Your task to perform on an android device: Open Youtube and go to the subscriptions tab Image 0: 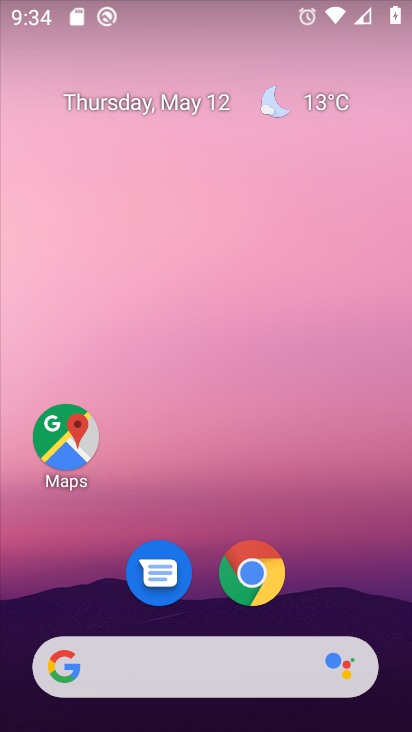
Step 0: drag from (405, 669) to (347, 179)
Your task to perform on an android device: Open Youtube and go to the subscriptions tab Image 1: 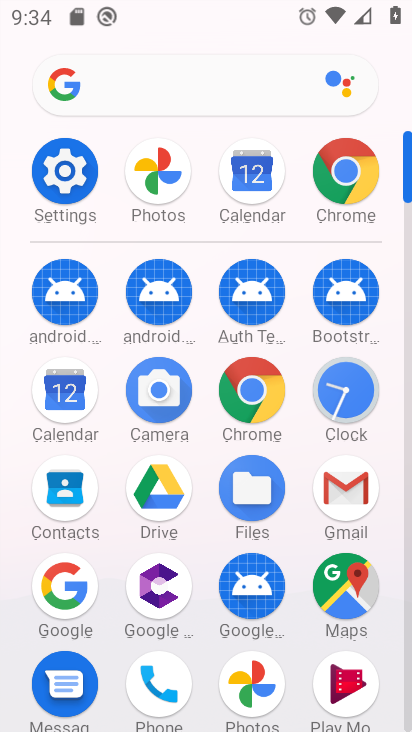
Step 1: drag from (404, 109) to (402, 48)
Your task to perform on an android device: Open Youtube and go to the subscriptions tab Image 2: 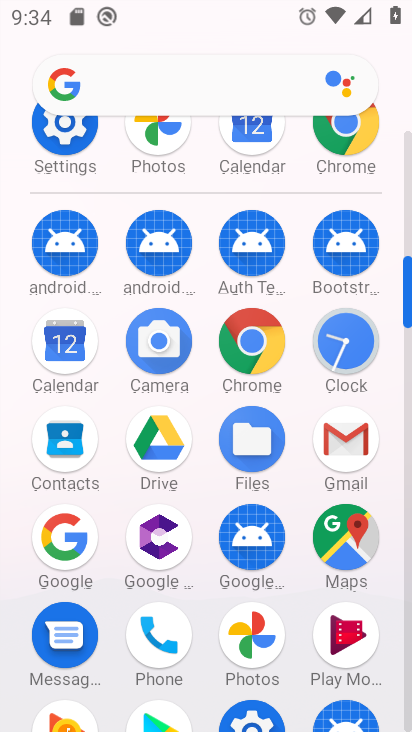
Step 2: drag from (408, 268) to (401, 135)
Your task to perform on an android device: Open Youtube and go to the subscriptions tab Image 3: 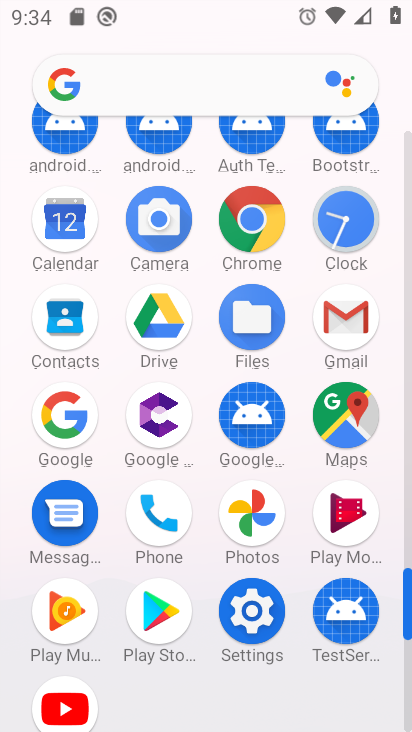
Step 3: click (69, 714)
Your task to perform on an android device: Open Youtube and go to the subscriptions tab Image 4: 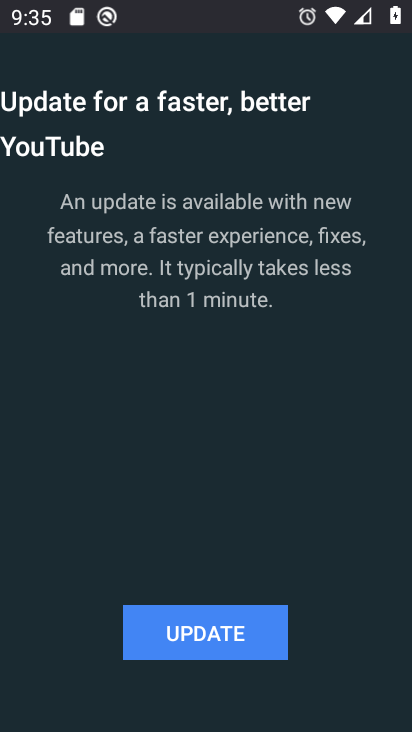
Step 4: click (202, 647)
Your task to perform on an android device: Open Youtube and go to the subscriptions tab Image 5: 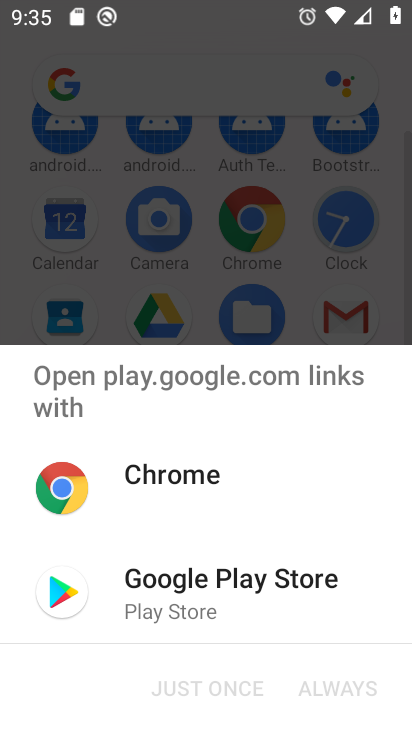
Step 5: click (128, 590)
Your task to perform on an android device: Open Youtube and go to the subscriptions tab Image 6: 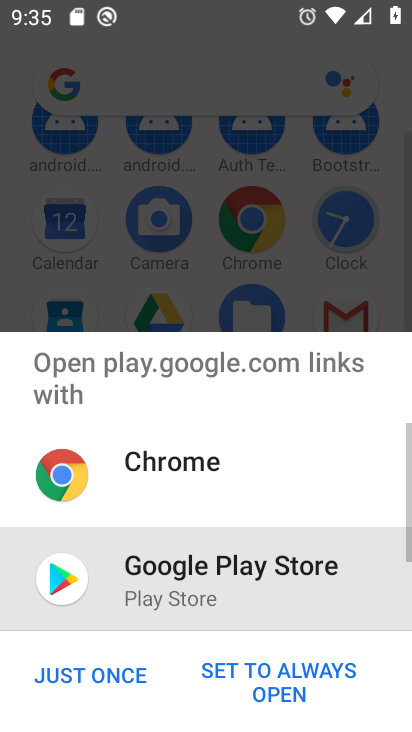
Step 6: click (101, 674)
Your task to perform on an android device: Open Youtube and go to the subscriptions tab Image 7: 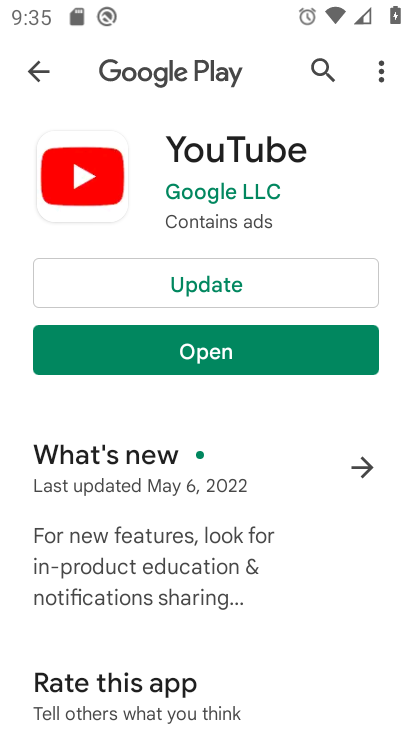
Step 7: click (224, 287)
Your task to perform on an android device: Open Youtube and go to the subscriptions tab Image 8: 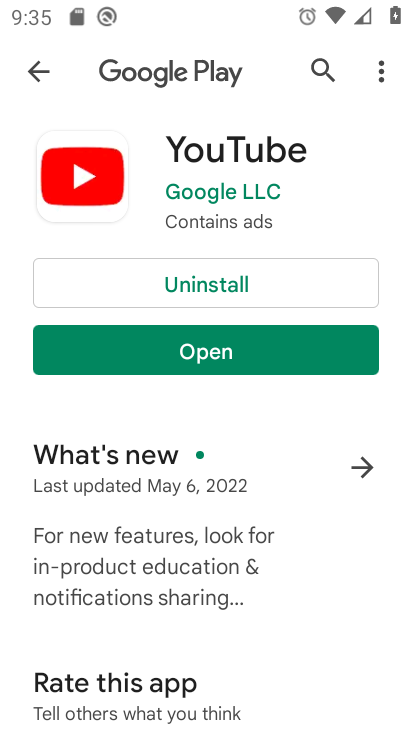
Step 8: click (184, 352)
Your task to perform on an android device: Open Youtube and go to the subscriptions tab Image 9: 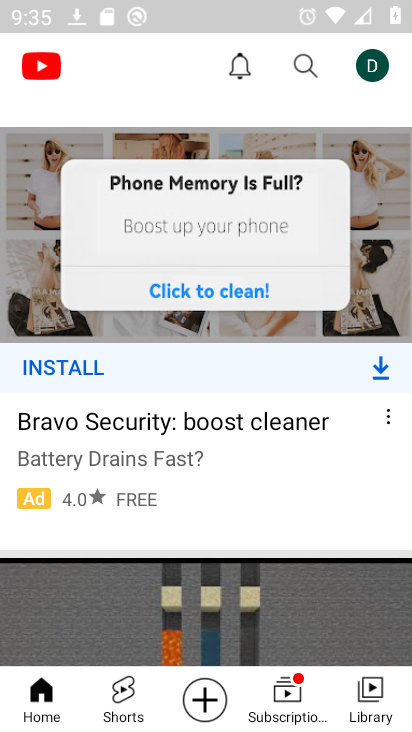
Step 9: click (291, 706)
Your task to perform on an android device: Open Youtube and go to the subscriptions tab Image 10: 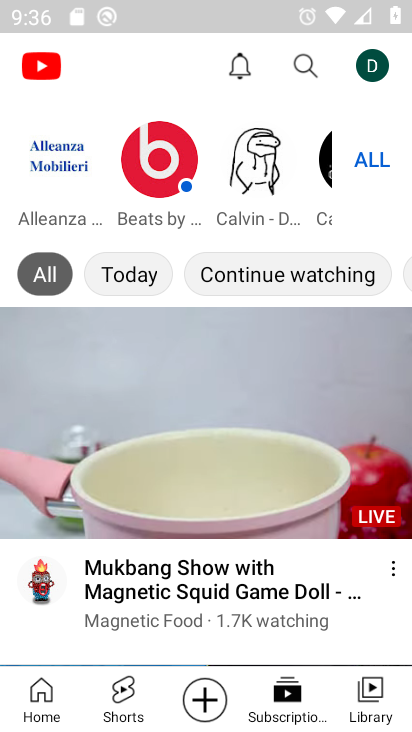
Step 10: task complete